Your task to perform on an android device: Show me popular videos on Youtube Image 0: 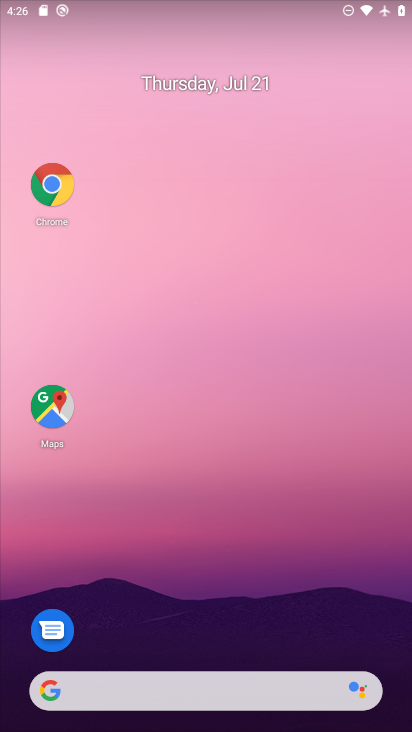
Step 0: drag from (212, 645) to (366, 64)
Your task to perform on an android device: Show me popular videos on Youtube Image 1: 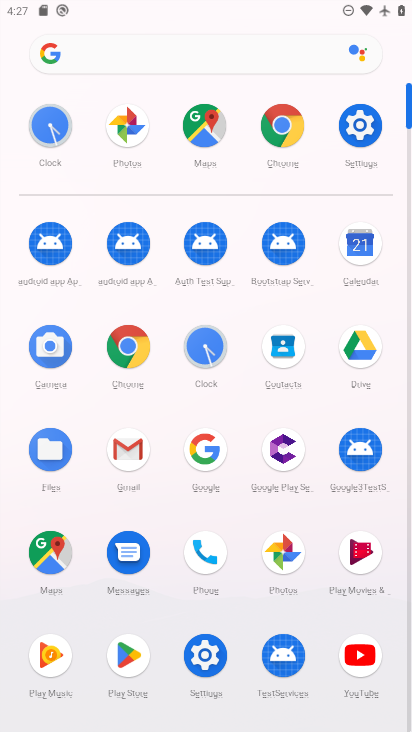
Step 1: click (361, 635)
Your task to perform on an android device: Show me popular videos on Youtube Image 2: 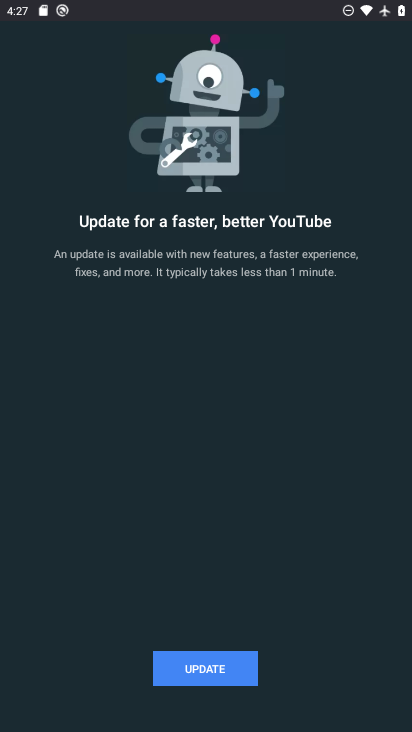
Step 2: click (205, 659)
Your task to perform on an android device: Show me popular videos on Youtube Image 3: 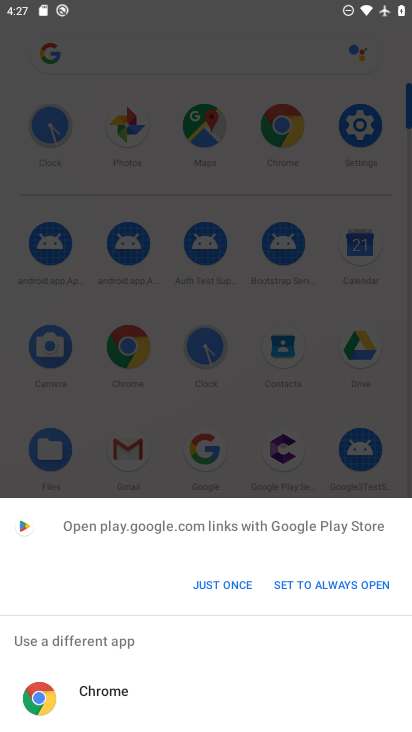
Step 3: click (233, 592)
Your task to perform on an android device: Show me popular videos on Youtube Image 4: 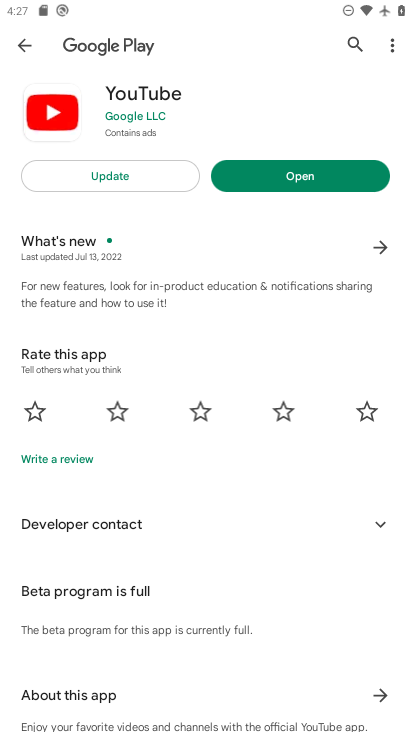
Step 4: click (157, 174)
Your task to perform on an android device: Show me popular videos on Youtube Image 5: 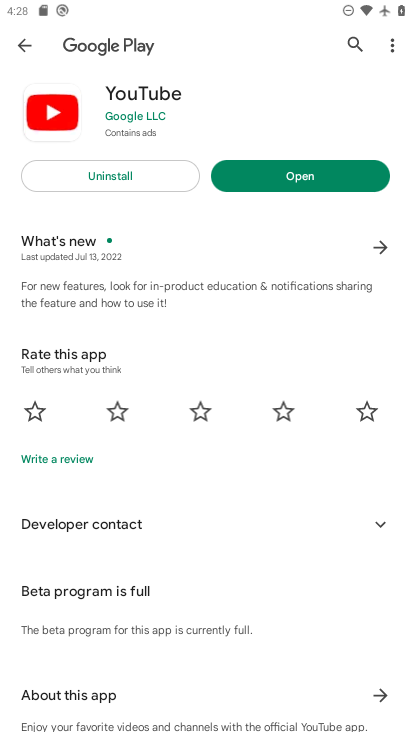
Step 5: click (252, 167)
Your task to perform on an android device: Show me popular videos on Youtube Image 6: 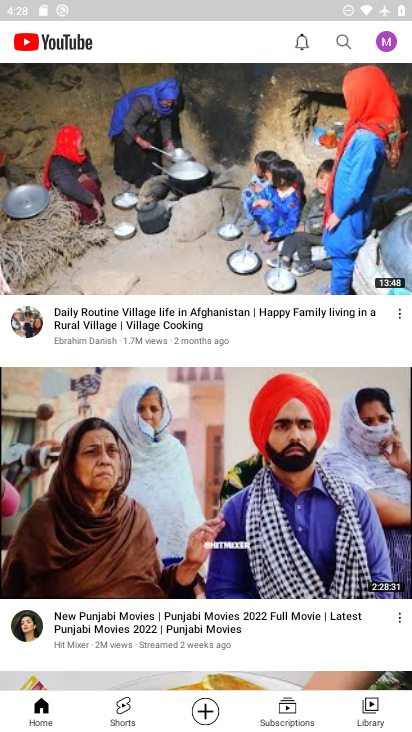
Step 6: drag from (224, 171) to (246, 455)
Your task to perform on an android device: Show me popular videos on Youtube Image 7: 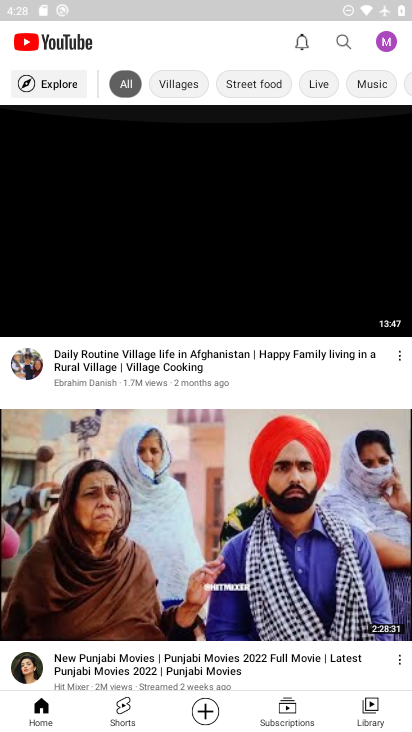
Step 7: click (65, 88)
Your task to perform on an android device: Show me popular videos on Youtube Image 8: 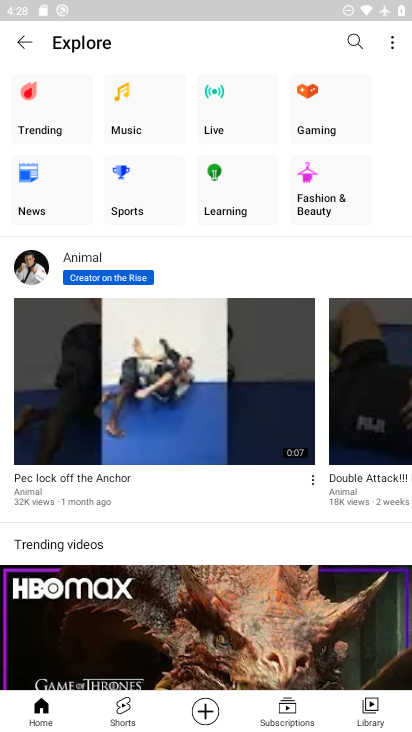
Step 8: click (37, 103)
Your task to perform on an android device: Show me popular videos on Youtube Image 9: 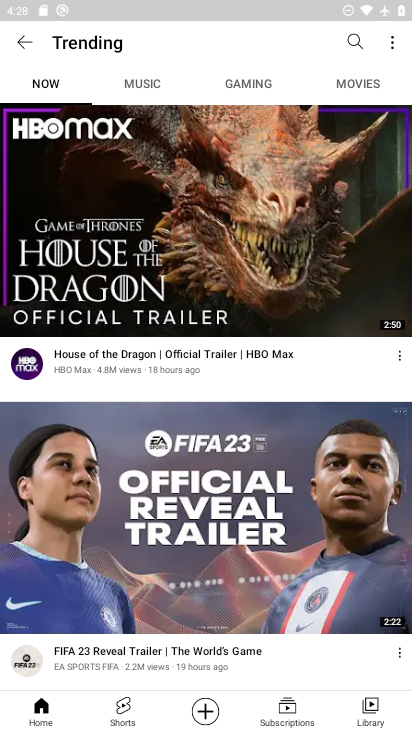
Step 9: task complete